Your task to perform on an android device: See recent photos Image 0: 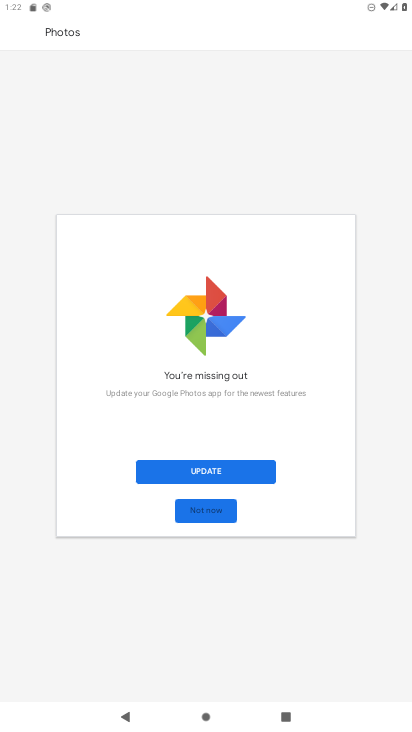
Step 0: press home button
Your task to perform on an android device: See recent photos Image 1: 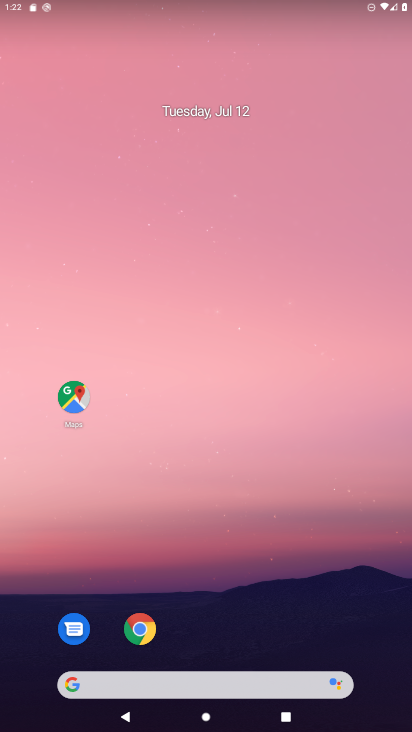
Step 1: drag from (229, 648) to (280, 0)
Your task to perform on an android device: See recent photos Image 2: 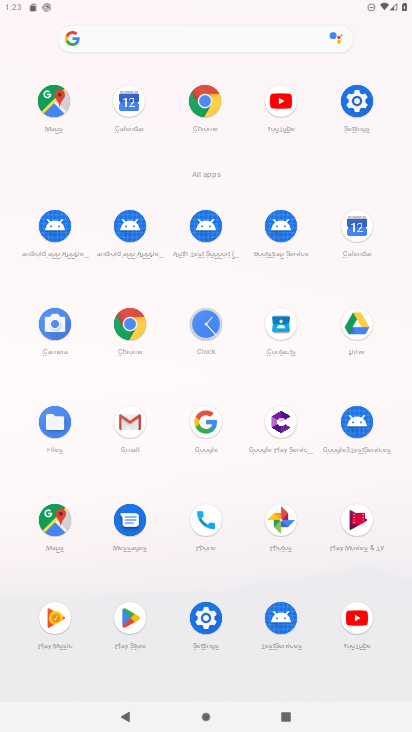
Step 2: click (272, 522)
Your task to perform on an android device: See recent photos Image 3: 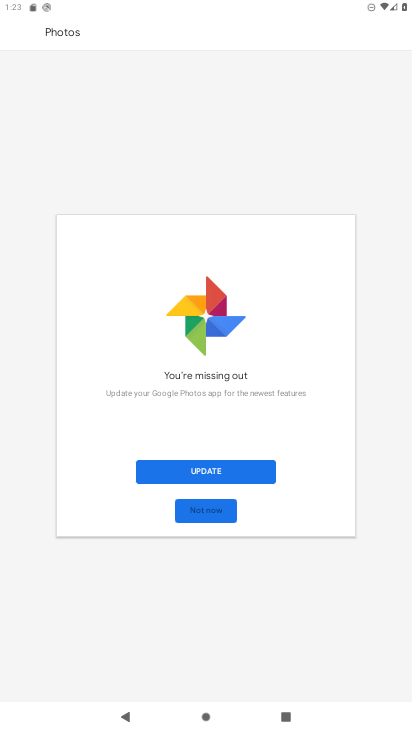
Step 3: press home button
Your task to perform on an android device: See recent photos Image 4: 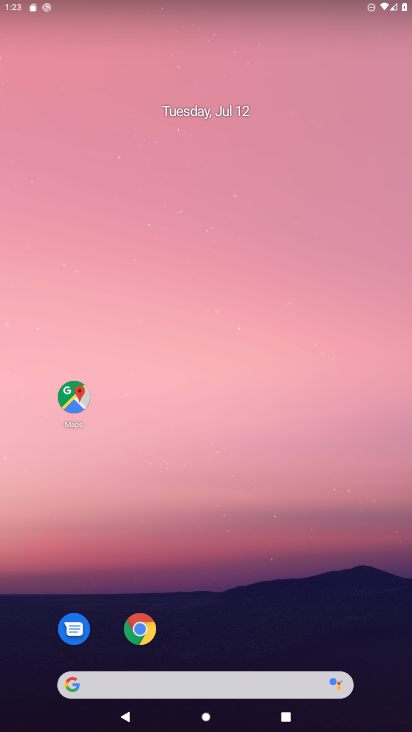
Step 4: drag from (229, 624) to (276, 11)
Your task to perform on an android device: See recent photos Image 5: 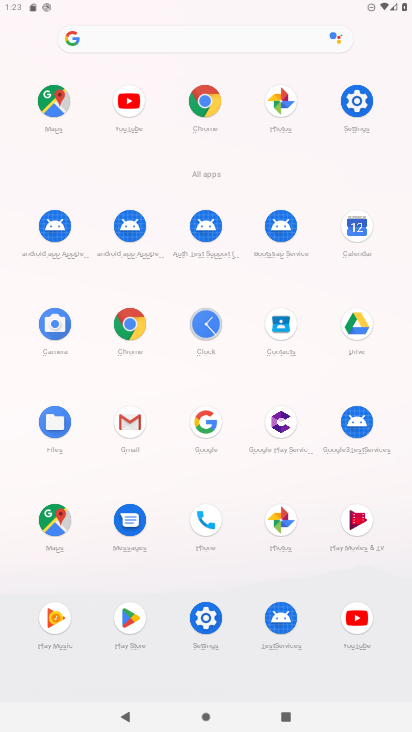
Step 5: click (281, 516)
Your task to perform on an android device: See recent photos Image 6: 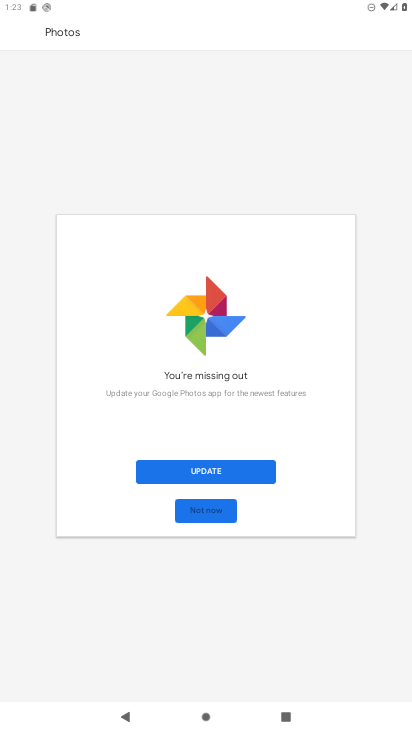
Step 6: click (206, 507)
Your task to perform on an android device: See recent photos Image 7: 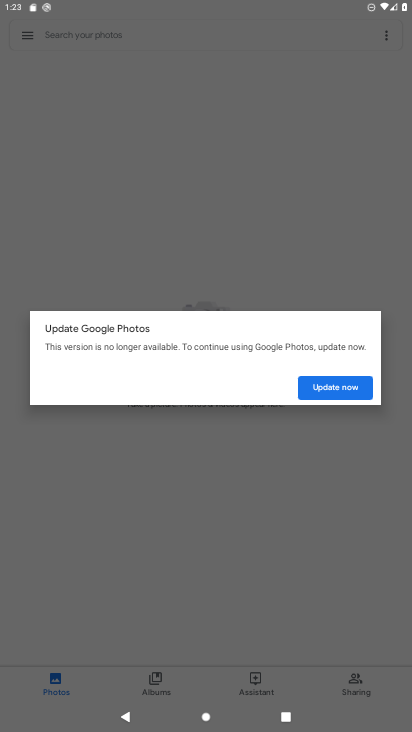
Step 7: click (347, 384)
Your task to perform on an android device: See recent photos Image 8: 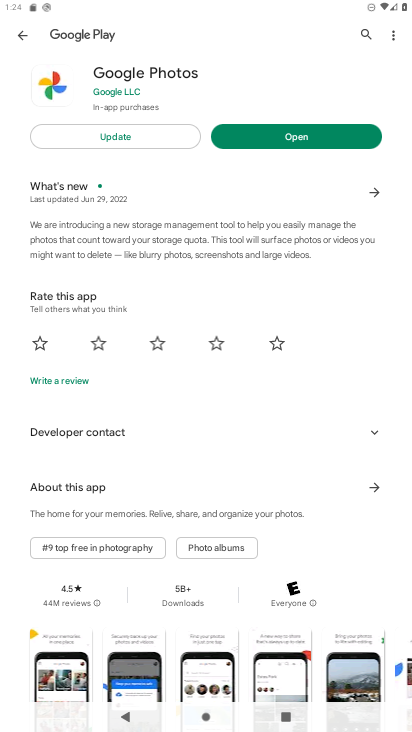
Step 8: click (124, 137)
Your task to perform on an android device: See recent photos Image 9: 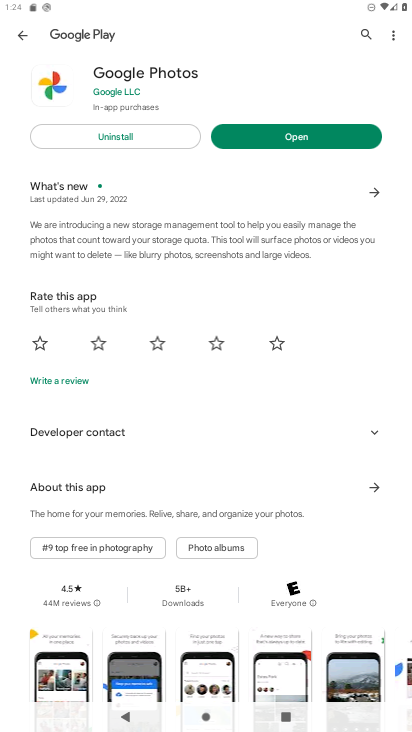
Step 9: click (301, 132)
Your task to perform on an android device: See recent photos Image 10: 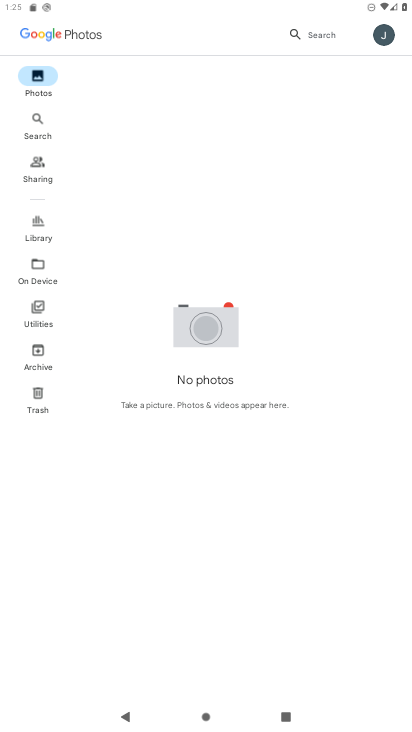
Step 10: task complete